Your task to perform on an android device: turn off translation in the chrome app Image 0: 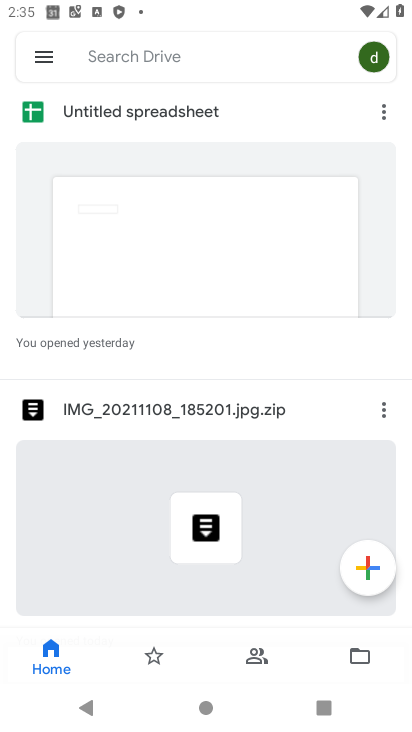
Step 0: press home button
Your task to perform on an android device: turn off translation in the chrome app Image 1: 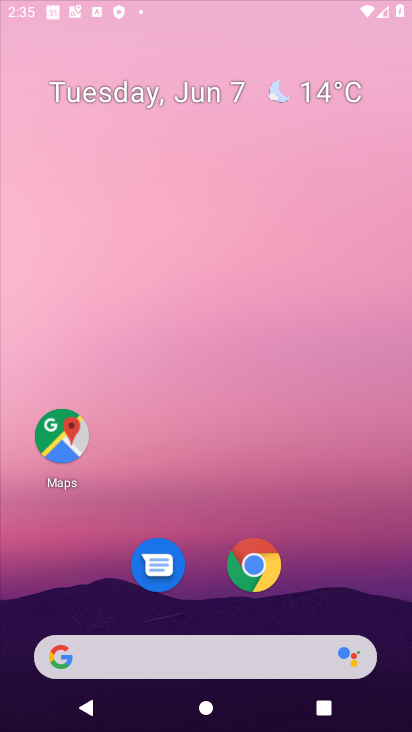
Step 1: drag from (249, 653) to (258, 9)
Your task to perform on an android device: turn off translation in the chrome app Image 2: 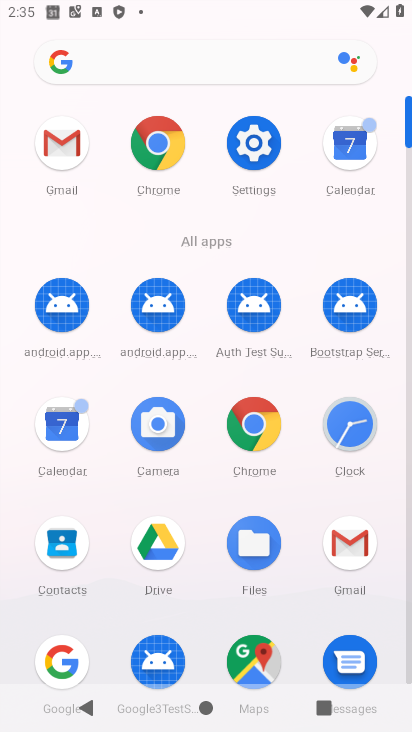
Step 2: click (243, 420)
Your task to perform on an android device: turn off translation in the chrome app Image 3: 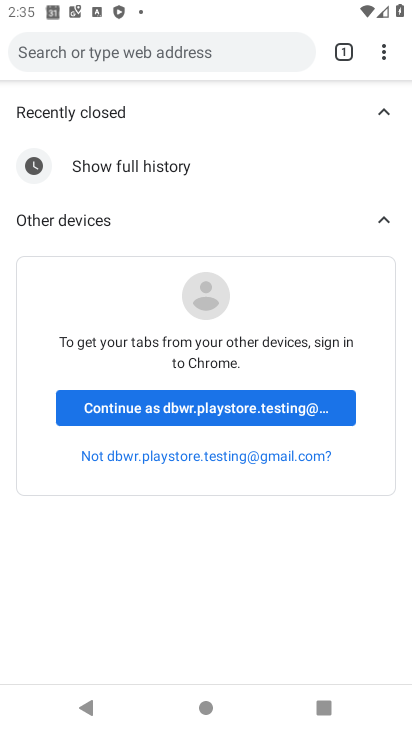
Step 3: click (380, 64)
Your task to perform on an android device: turn off translation in the chrome app Image 4: 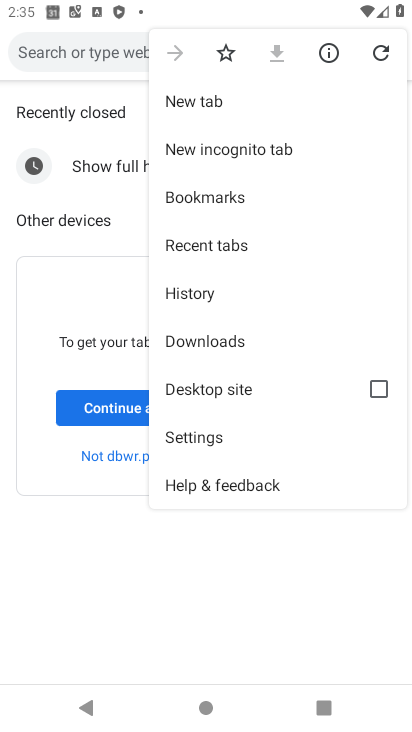
Step 4: click (202, 446)
Your task to perform on an android device: turn off translation in the chrome app Image 5: 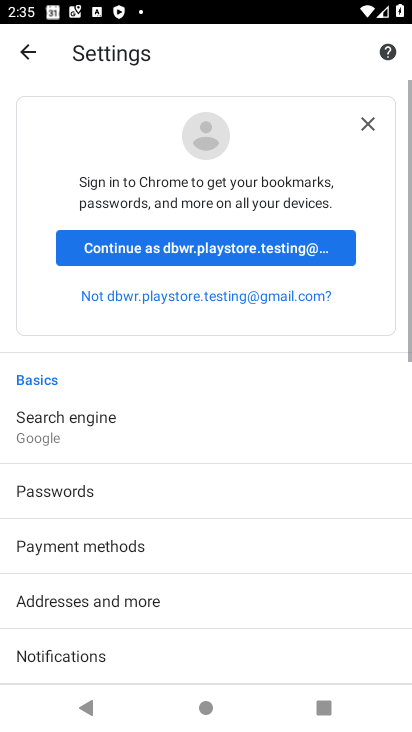
Step 5: drag from (266, 624) to (266, 138)
Your task to perform on an android device: turn off translation in the chrome app Image 6: 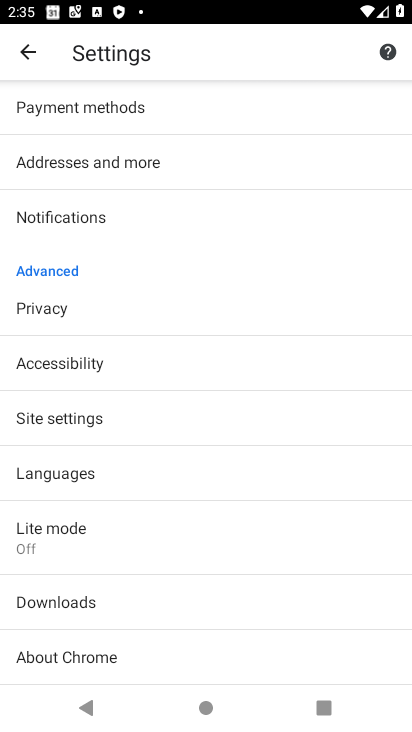
Step 6: click (103, 426)
Your task to perform on an android device: turn off translation in the chrome app Image 7: 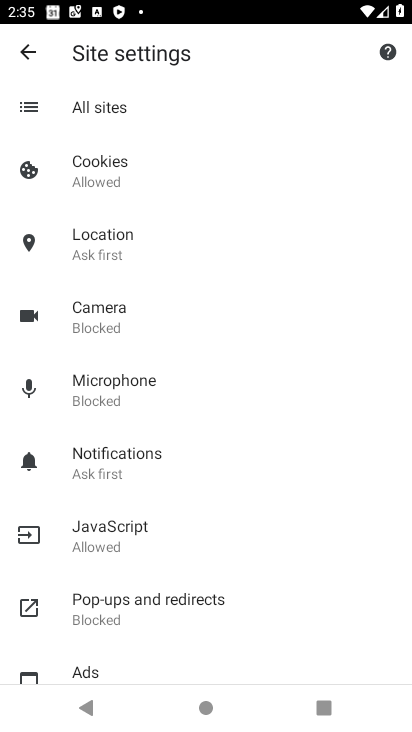
Step 7: press back button
Your task to perform on an android device: turn off translation in the chrome app Image 8: 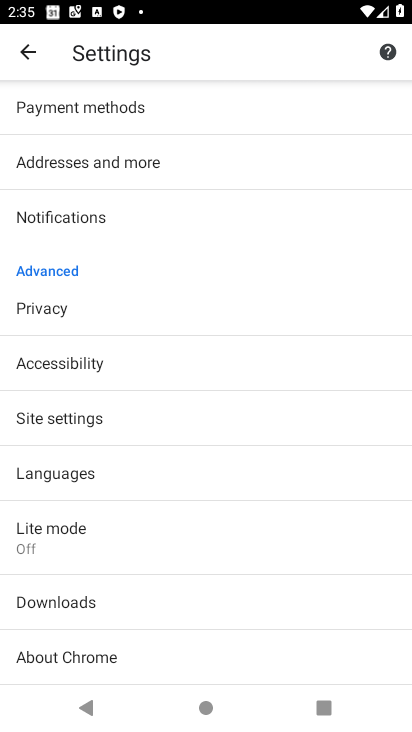
Step 8: click (107, 551)
Your task to perform on an android device: turn off translation in the chrome app Image 9: 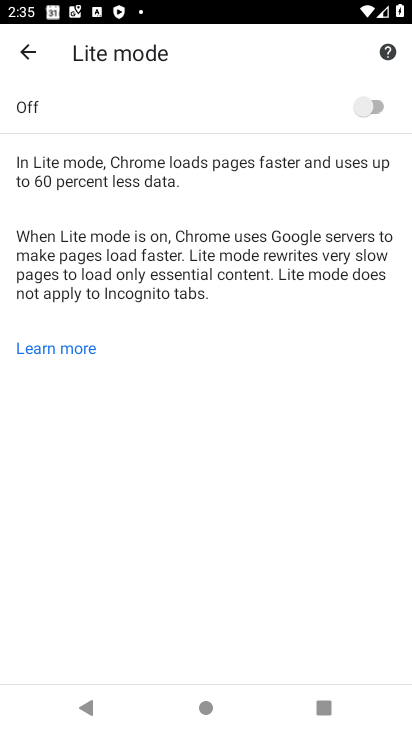
Step 9: press back button
Your task to perform on an android device: turn off translation in the chrome app Image 10: 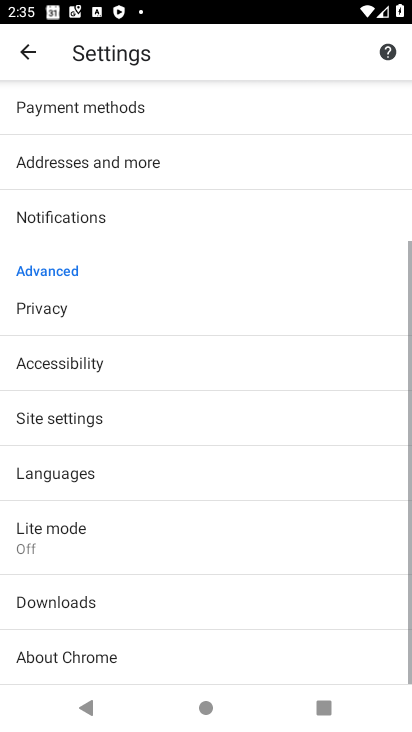
Step 10: click (160, 465)
Your task to perform on an android device: turn off translation in the chrome app Image 11: 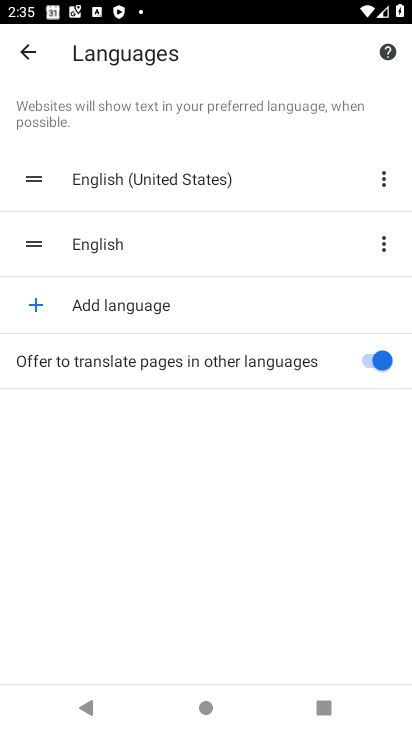
Step 11: click (379, 364)
Your task to perform on an android device: turn off translation in the chrome app Image 12: 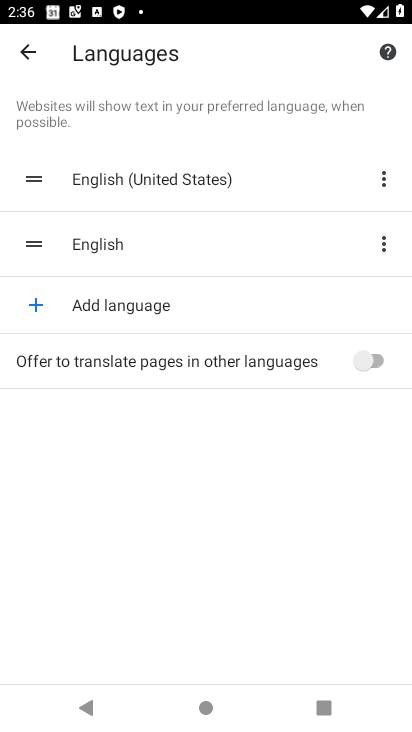
Step 12: task complete